Your task to perform on an android device: turn off notifications settings in the gmail app Image 0: 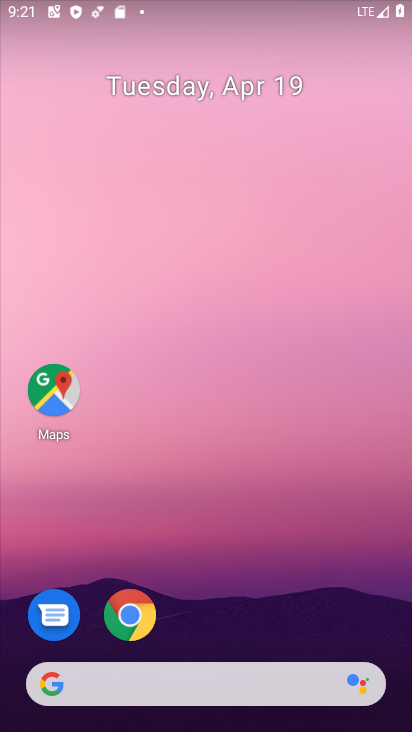
Step 0: drag from (251, 630) to (286, 49)
Your task to perform on an android device: turn off notifications settings in the gmail app Image 1: 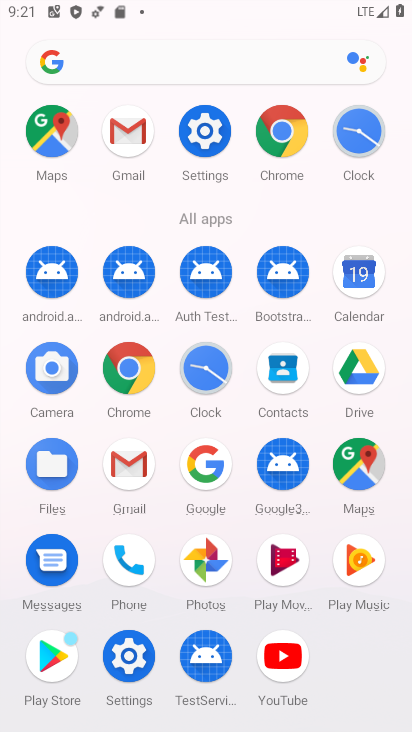
Step 1: click (119, 121)
Your task to perform on an android device: turn off notifications settings in the gmail app Image 2: 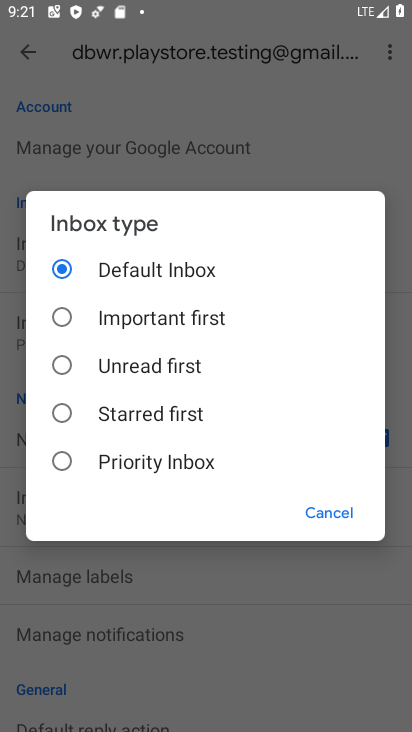
Step 2: click (311, 503)
Your task to perform on an android device: turn off notifications settings in the gmail app Image 3: 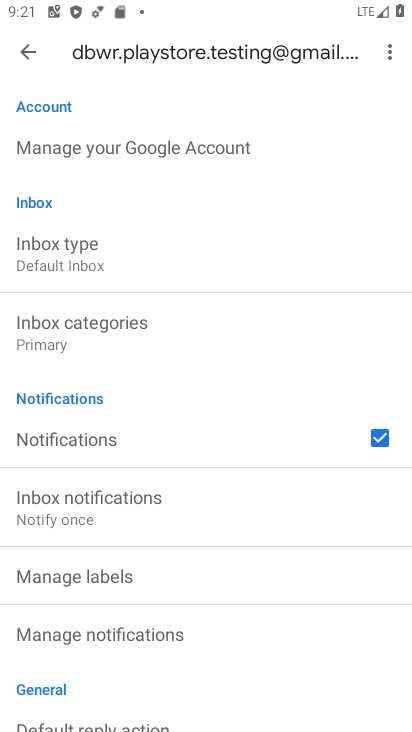
Step 3: click (219, 453)
Your task to perform on an android device: turn off notifications settings in the gmail app Image 4: 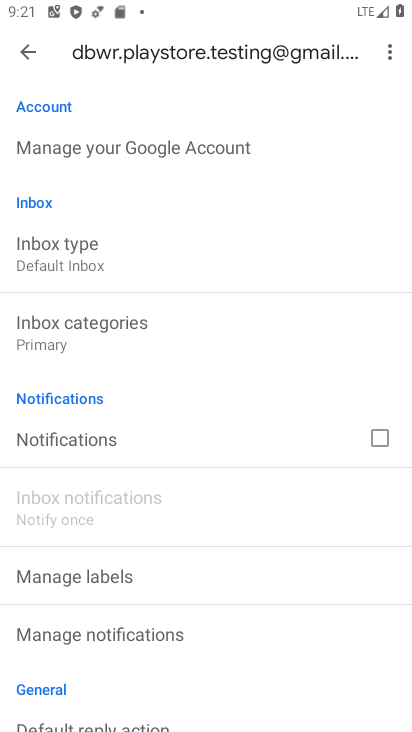
Step 4: click (219, 453)
Your task to perform on an android device: turn off notifications settings in the gmail app Image 5: 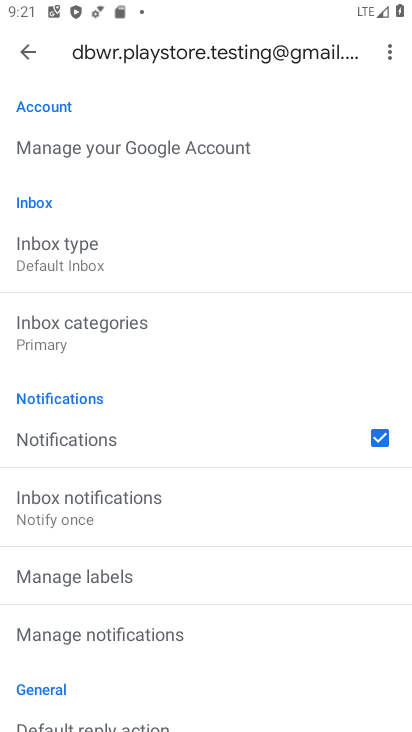
Step 5: click (154, 651)
Your task to perform on an android device: turn off notifications settings in the gmail app Image 6: 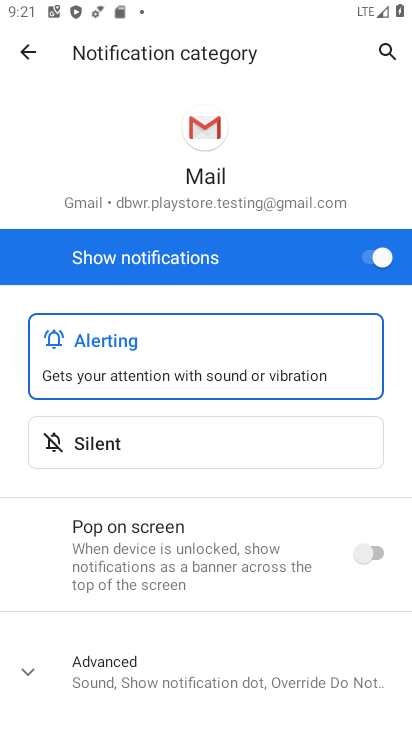
Step 6: click (378, 254)
Your task to perform on an android device: turn off notifications settings in the gmail app Image 7: 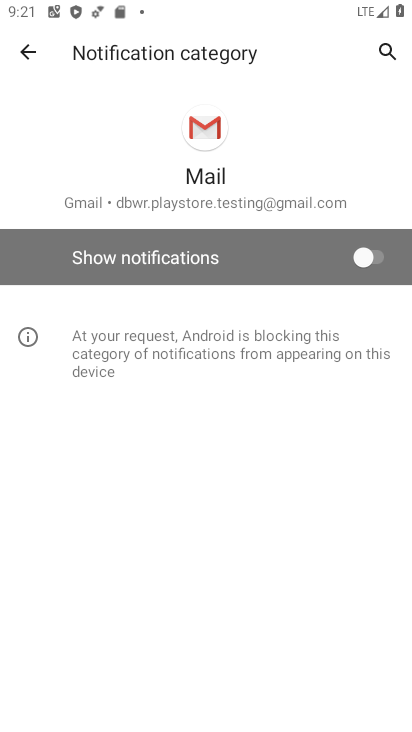
Step 7: task complete